Your task to perform on an android device: Search for pizza restaurants on Maps Image 0: 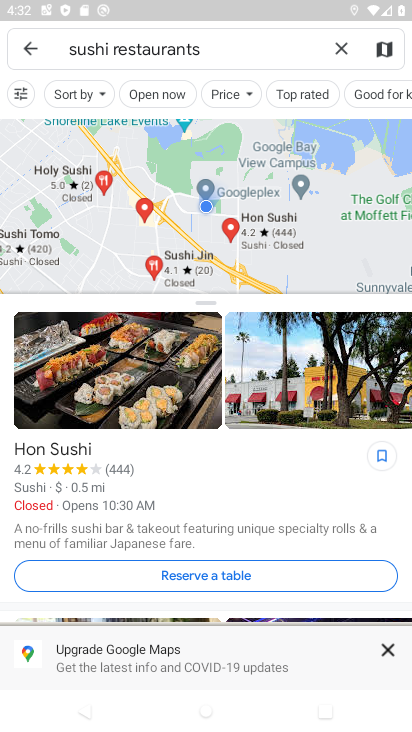
Step 0: click (162, 55)
Your task to perform on an android device: Search for pizza restaurants on Maps Image 1: 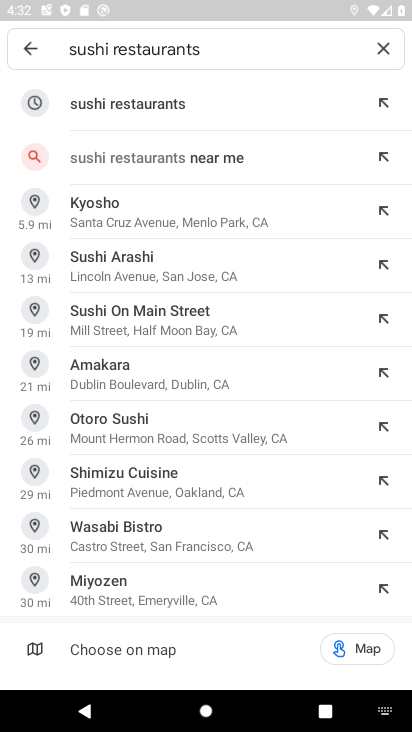
Step 1: click (381, 35)
Your task to perform on an android device: Search for pizza restaurants on Maps Image 2: 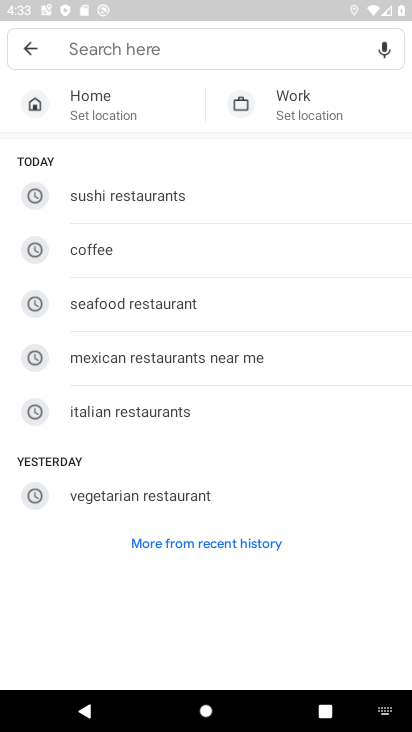
Step 2: type "Pizza restaurants"
Your task to perform on an android device: Search for pizza restaurants on Maps Image 3: 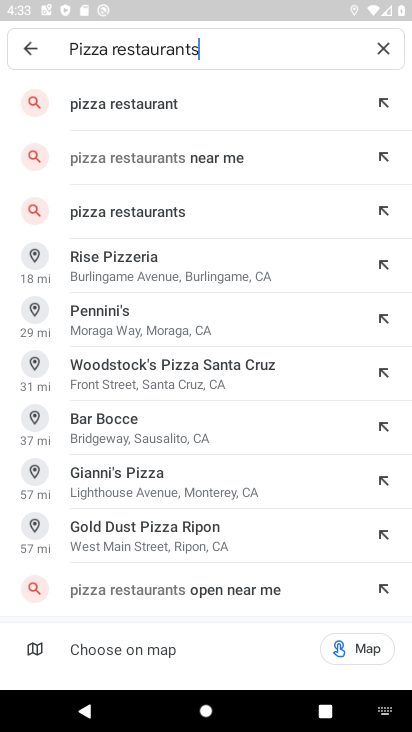
Step 3: click (137, 108)
Your task to perform on an android device: Search for pizza restaurants on Maps Image 4: 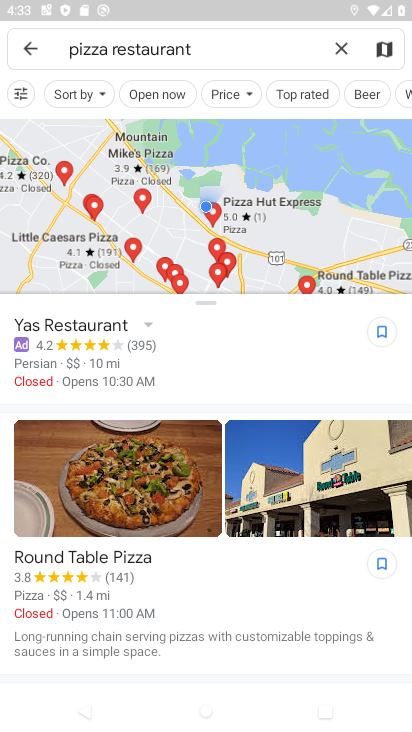
Step 4: task complete